Your task to perform on an android device: Go to Maps Image 0: 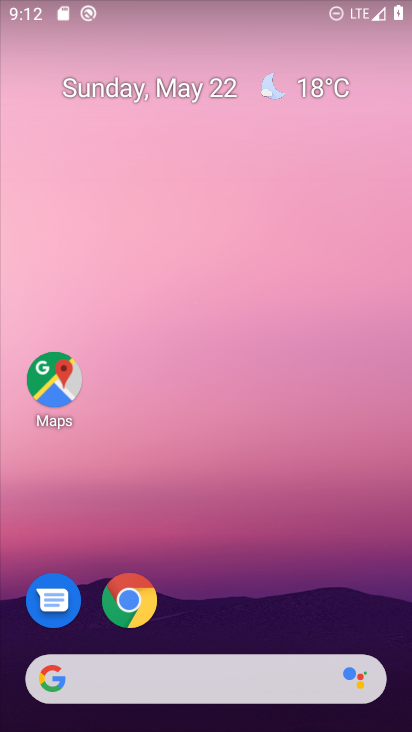
Step 0: drag from (385, 628) to (254, 61)
Your task to perform on an android device: Go to Maps Image 1: 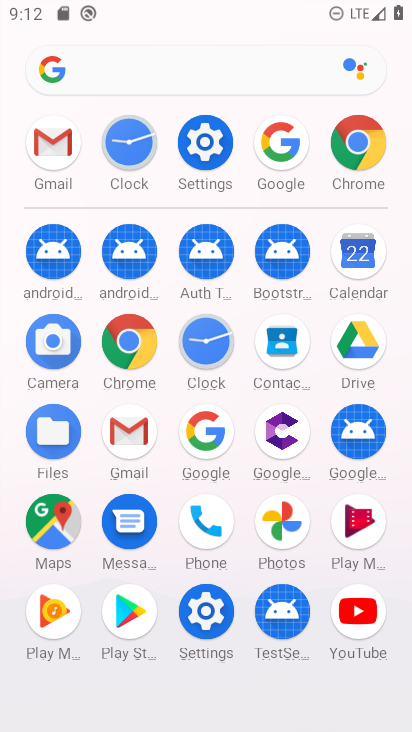
Step 1: click (57, 524)
Your task to perform on an android device: Go to Maps Image 2: 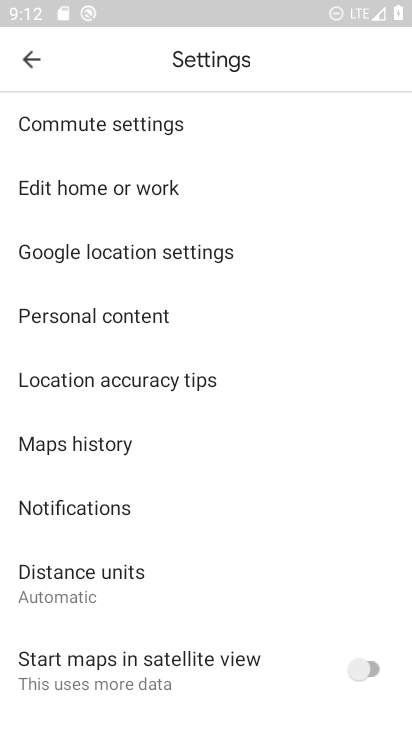
Step 2: task complete